Your task to perform on an android device: add a contact Image 0: 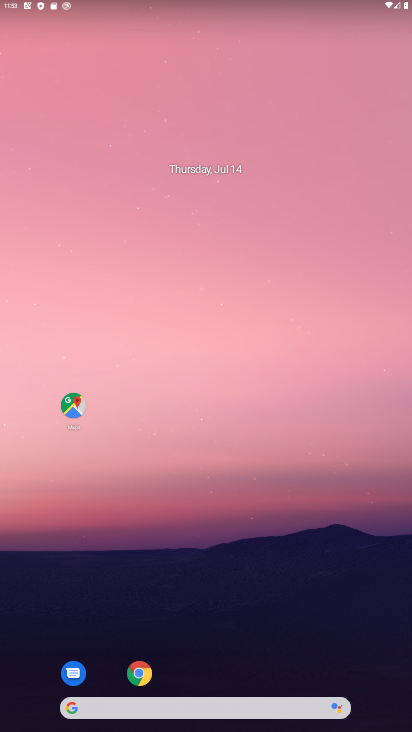
Step 0: drag from (246, 645) to (179, 26)
Your task to perform on an android device: add a contact Image 1: 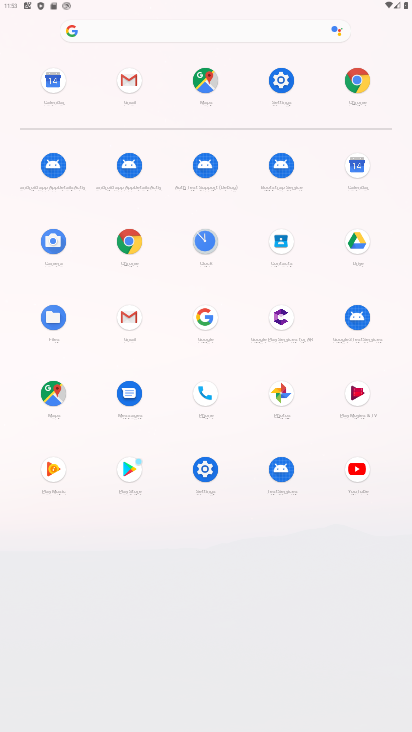
Step 1: click (277, 243)
Your task to perform on an android device: add a contact Image 2: 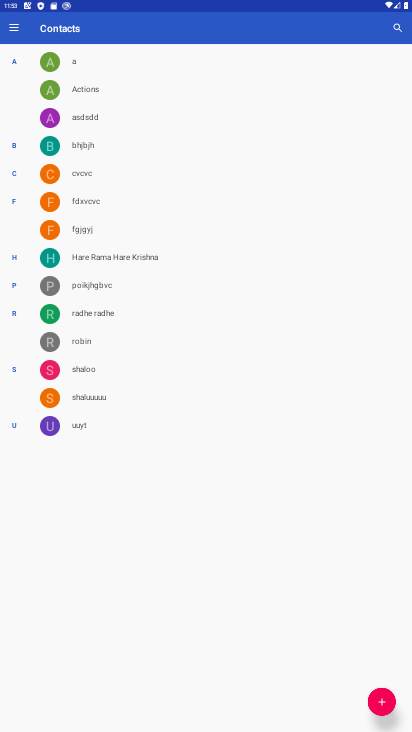
Step 2: click (380, 700)
Your task to perform on an android device: add a contact Image 3: 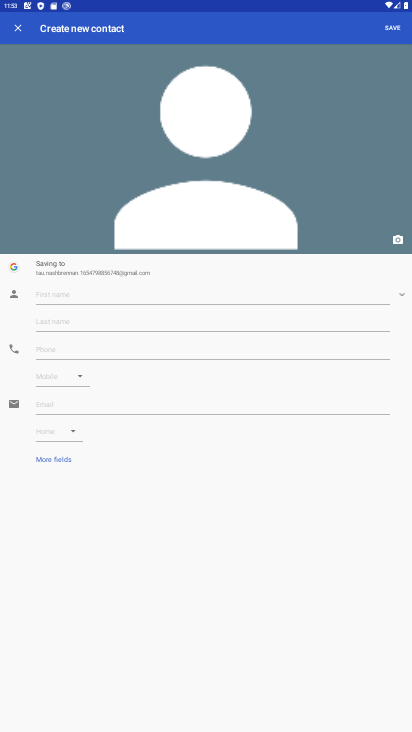
Step 3: click (112, 294)
Your task to perform on an android device: add a contact Image 4: 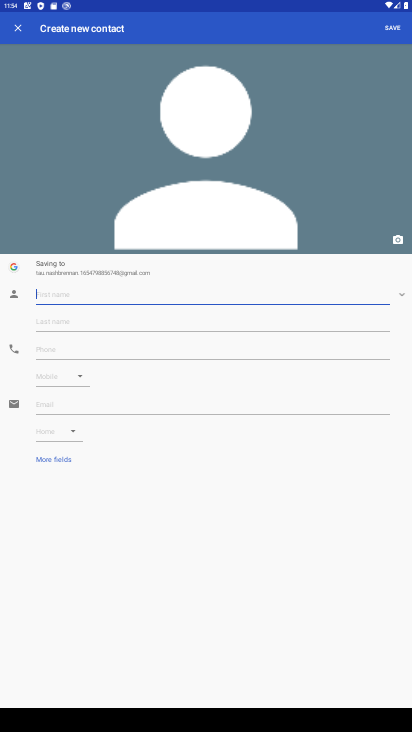
Step 4: type "op"
Your task to perform on an android device: add a contact Image 5: 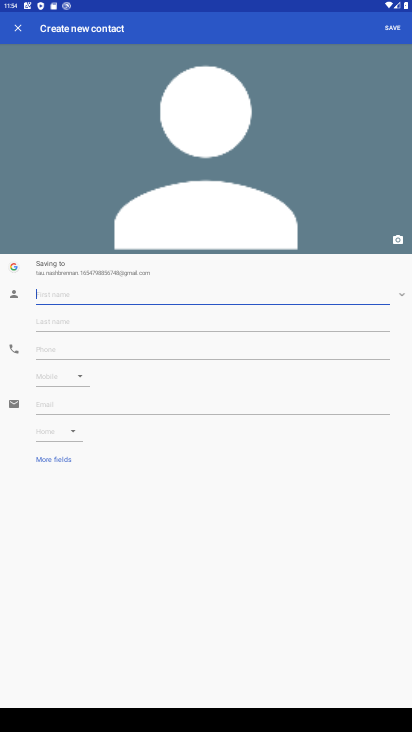
Step 5: click (49, 349)
Your task to perform on an android device: add a contact Image 6: 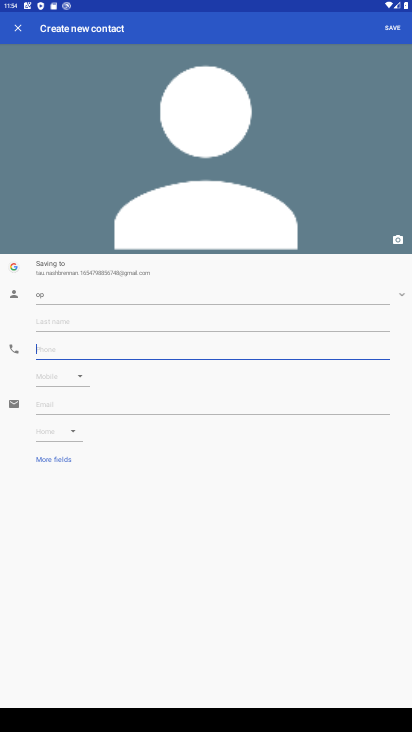
Step 6: type "9999999999"
Your task to perform on an android device: add a contact Image 7: 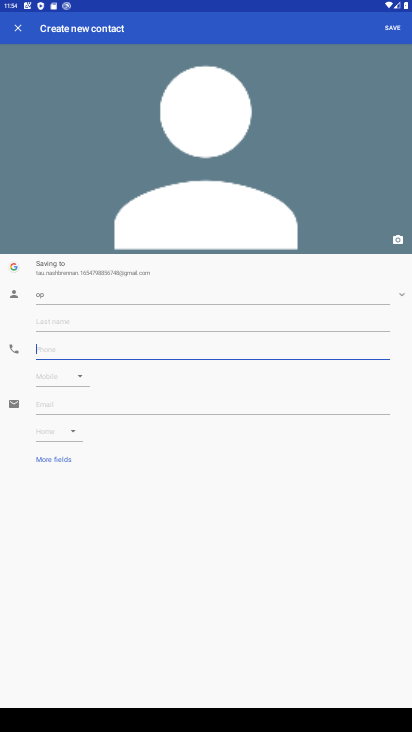
Step 7: click (391, 26)
Your task to perform on an android device: add a contact Image 8: 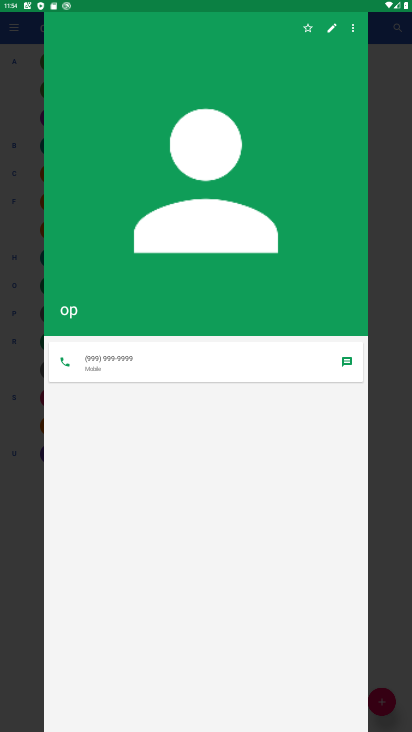
Step 8: task complete